Your task to perform on an android device: Go to location settings Image 0: 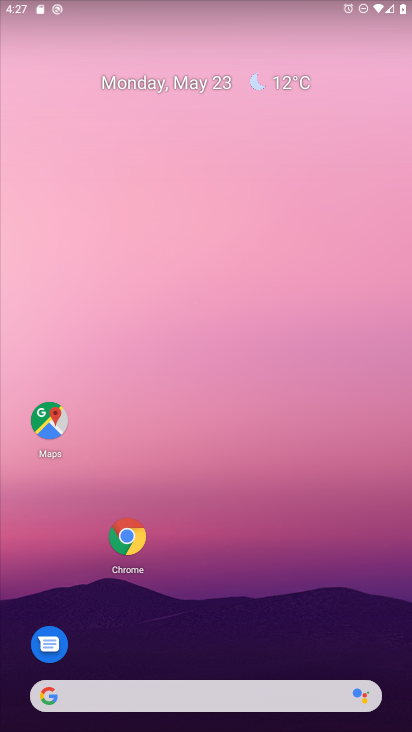
Step 0: drag from (284, 622) to (275, 132)
Your task to perform on an android device: Go to location settings Image 1: 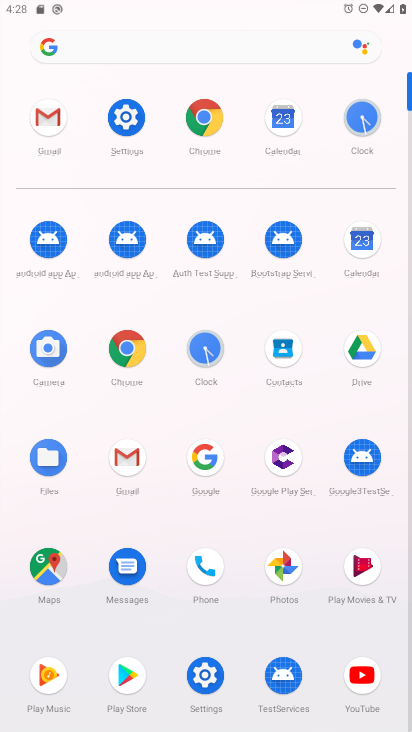
Step 1: click (128, 119)
Your task to perform on an android device: Go to location settings Image 2: 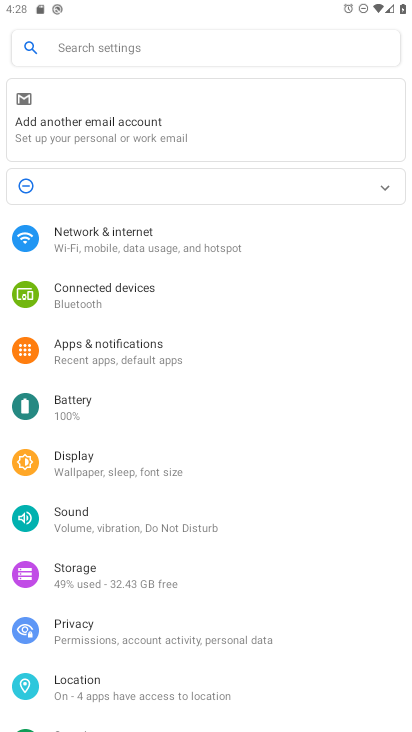
Step 2: click (115, 692)
Your task to perform on an android device: Go to location settings Image 3: 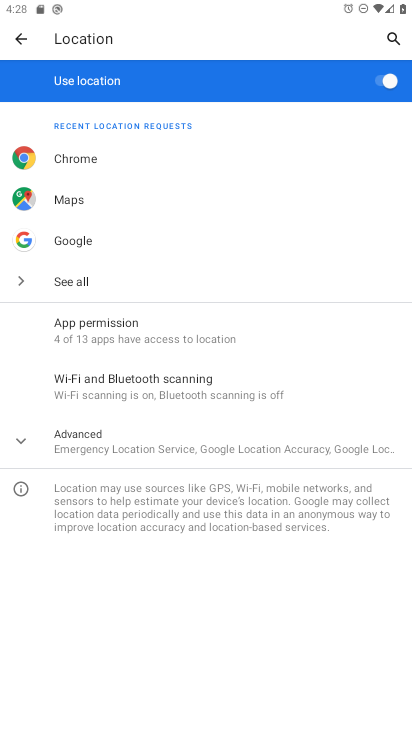
Step 3: task complete